Your task to perform on an android device: uninstall "Move to iOS" Image 0: 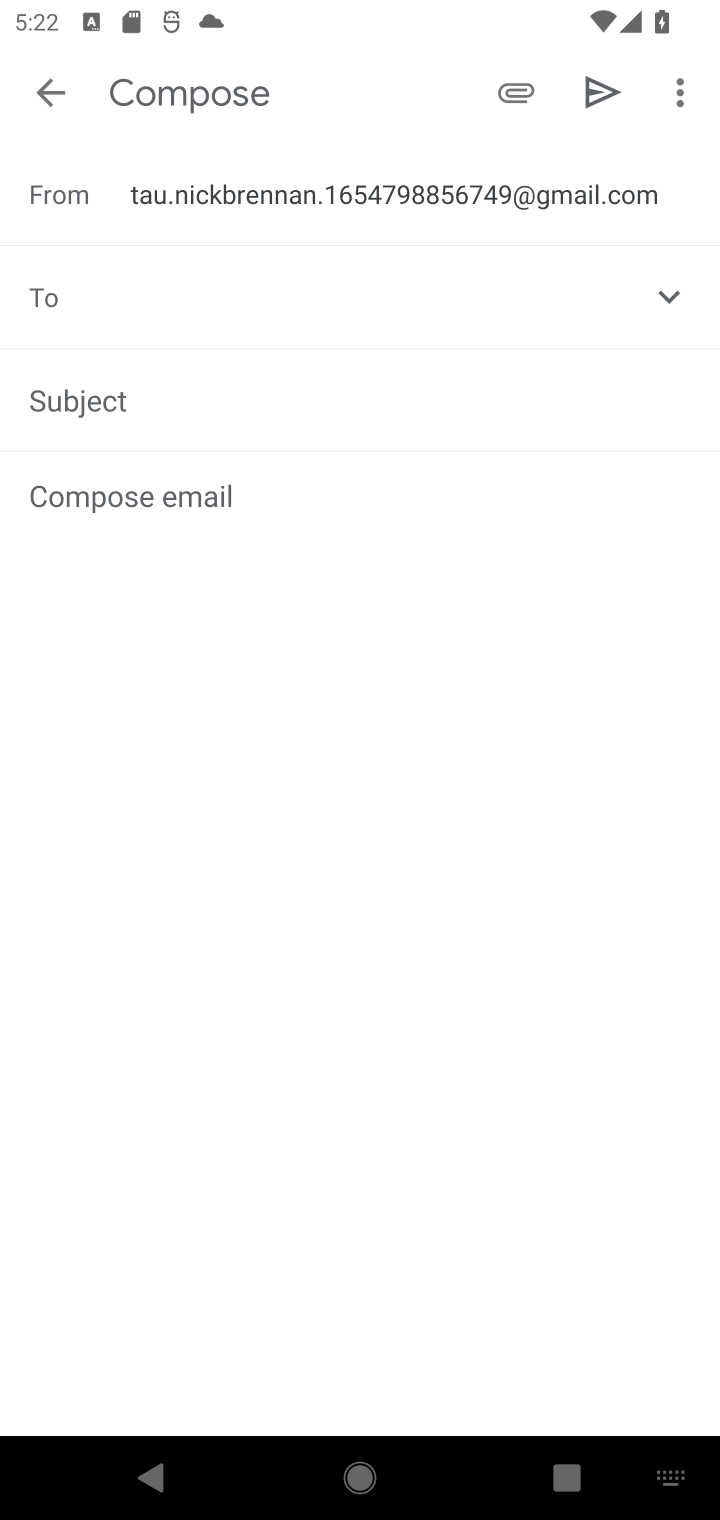
Step 0: press home button
Your task to perform on an android device: uninstall "Move to iOS" Image 1: 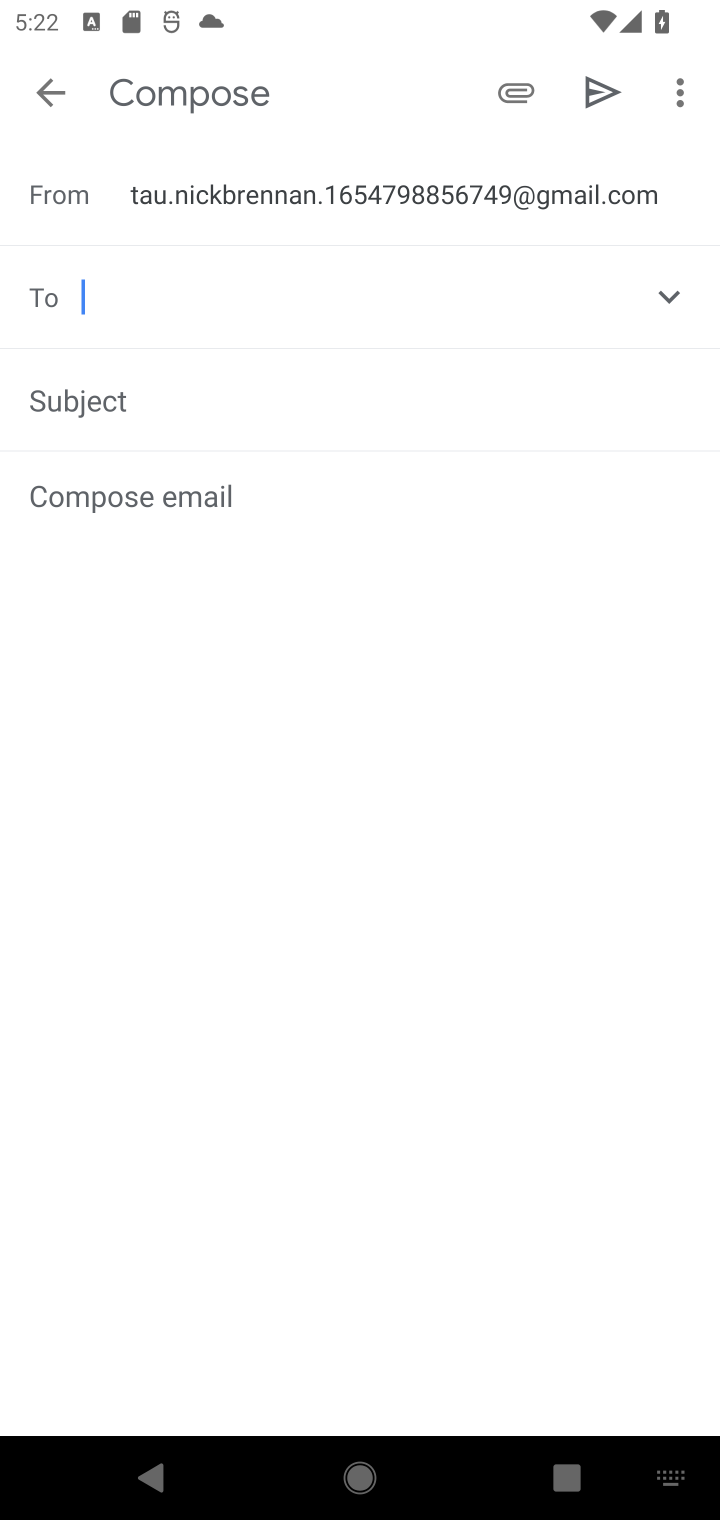
Step 1: press home button
Your task to perform on an android device: uninstall "Move to iOS" Image 2: 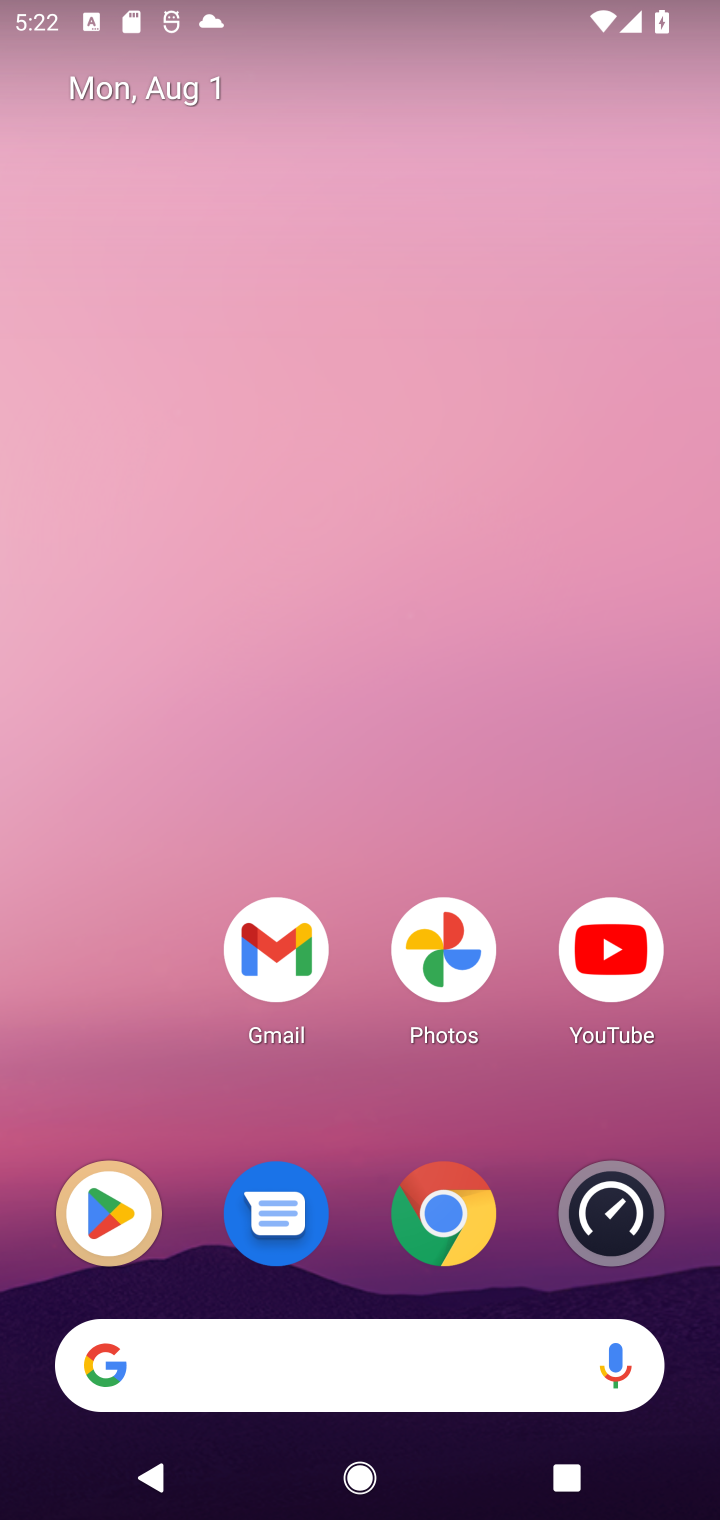
Step 2: drag from (343, 1114) to (349, 89)
Your task to perform on an android device: uninstall "Move to iOS" Image 3: 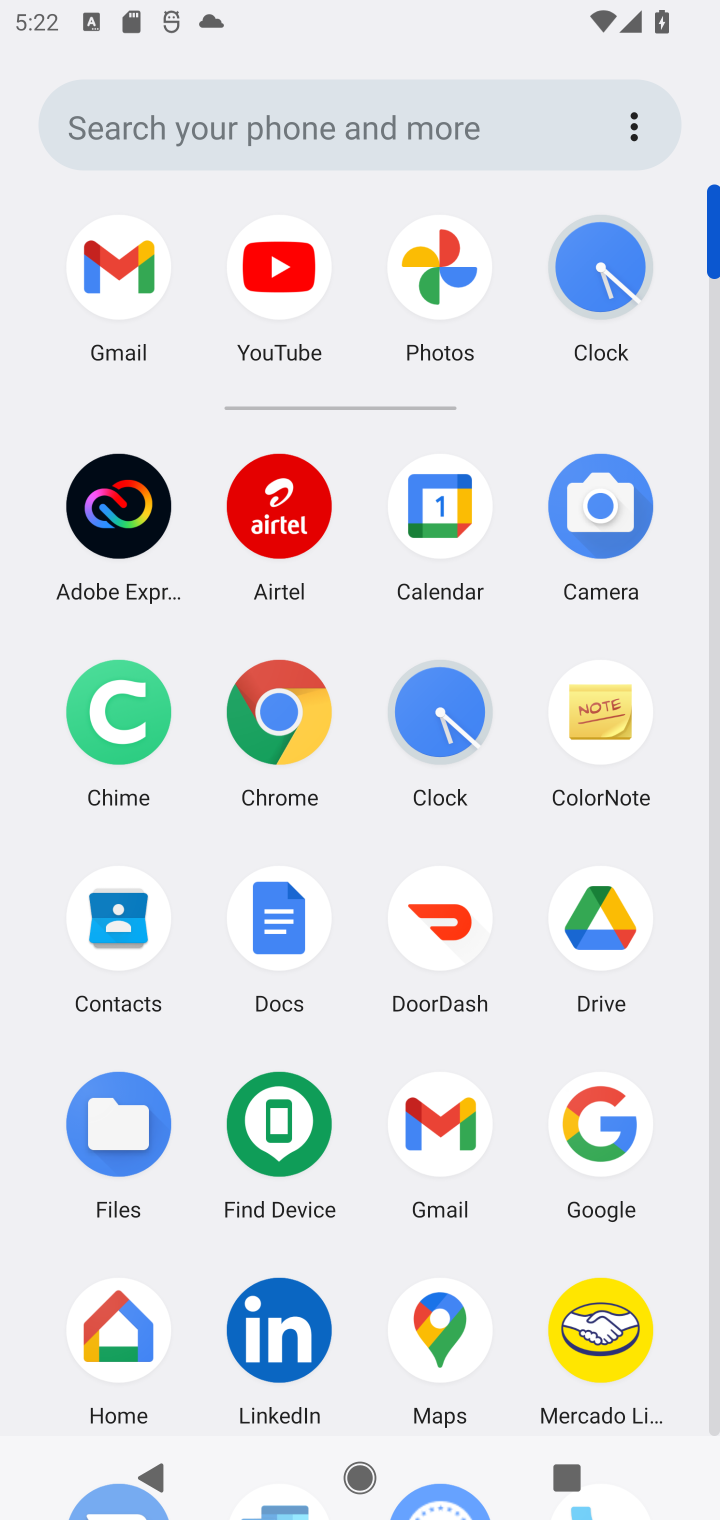
Step 3: drag from (361, 1261) to (402, 521)
Your task to perform on an android device: uninstall "Move to iOS" Image 4: 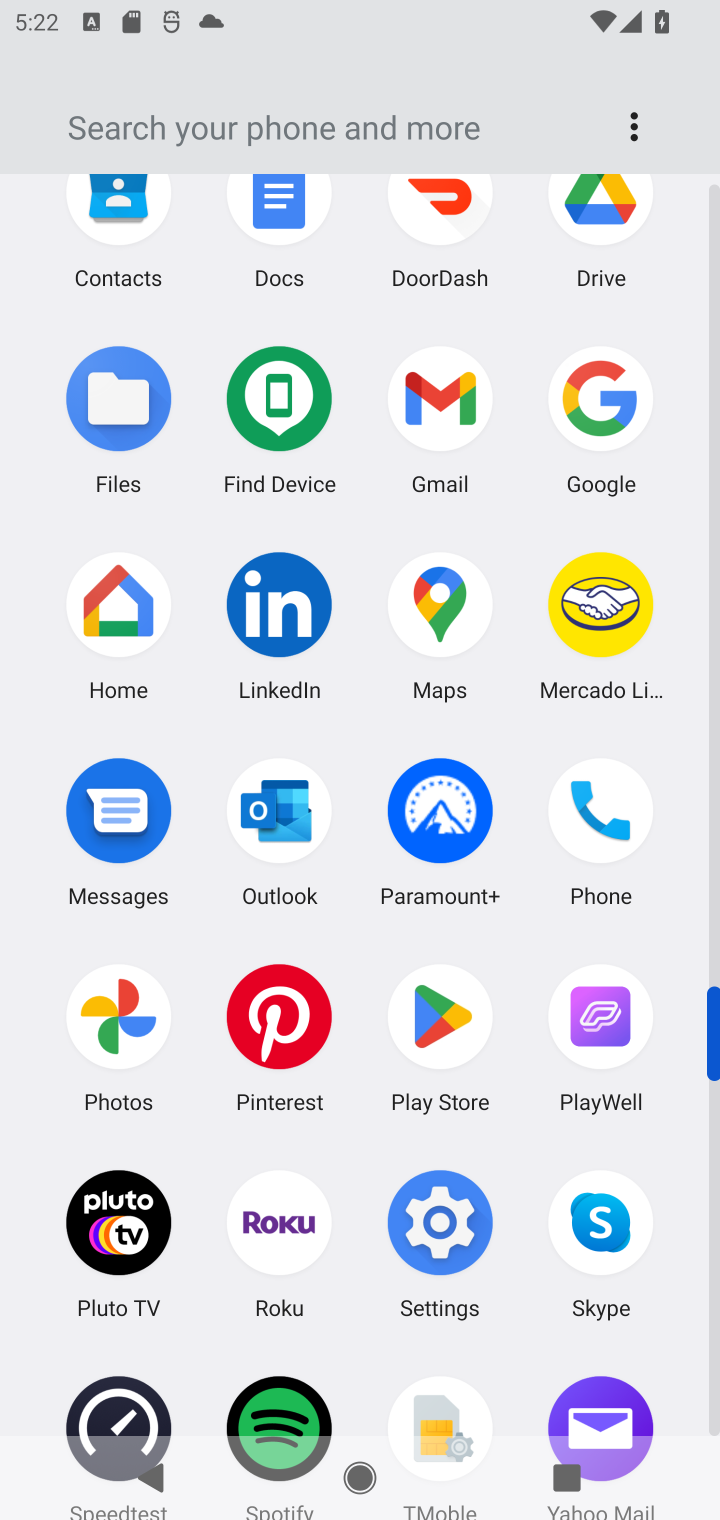
Step 4: click (437, 996)
Your task to perform on an android device: uninstall "Move to iOS" Image 5: 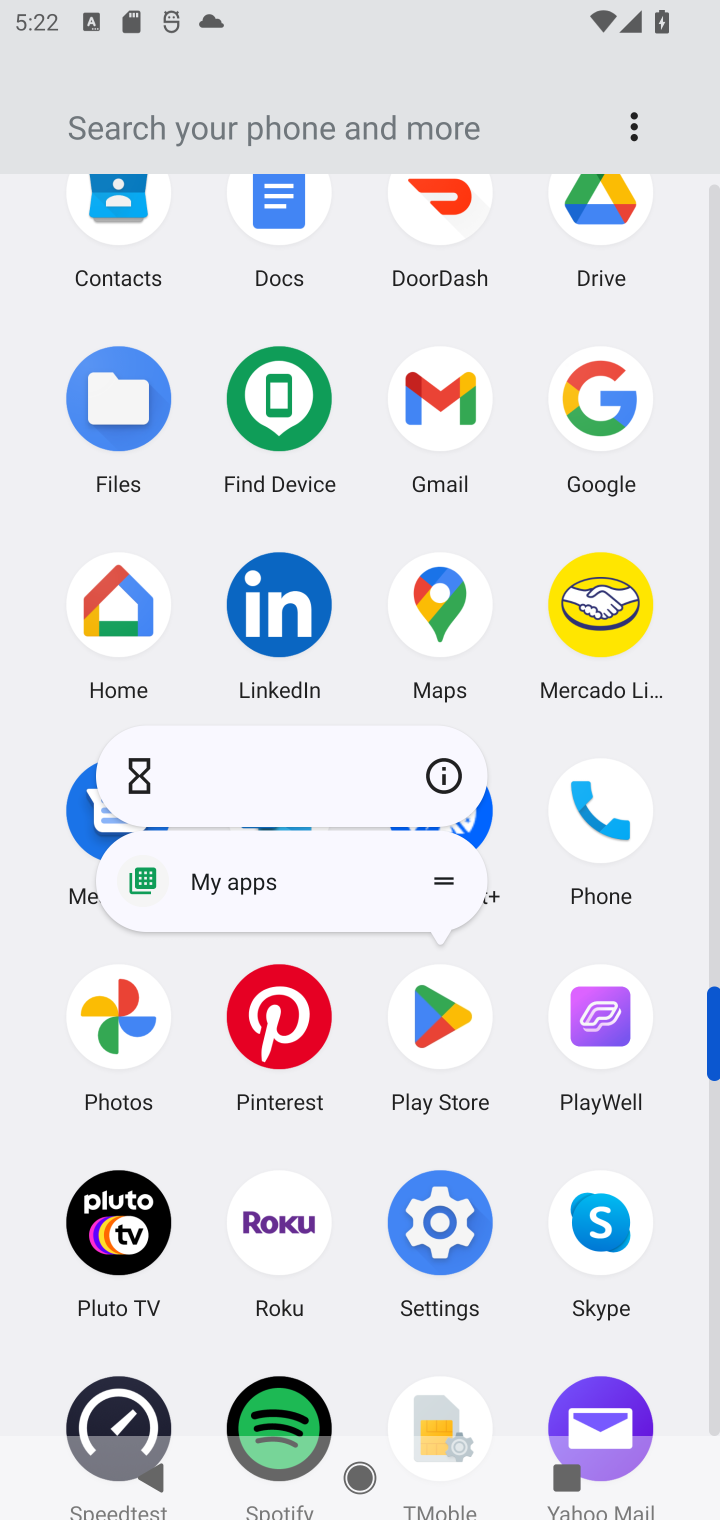
Step 5: click (431, 1018)
Your task to perform on an android device: uninstall "Move to iOS" Image 6: 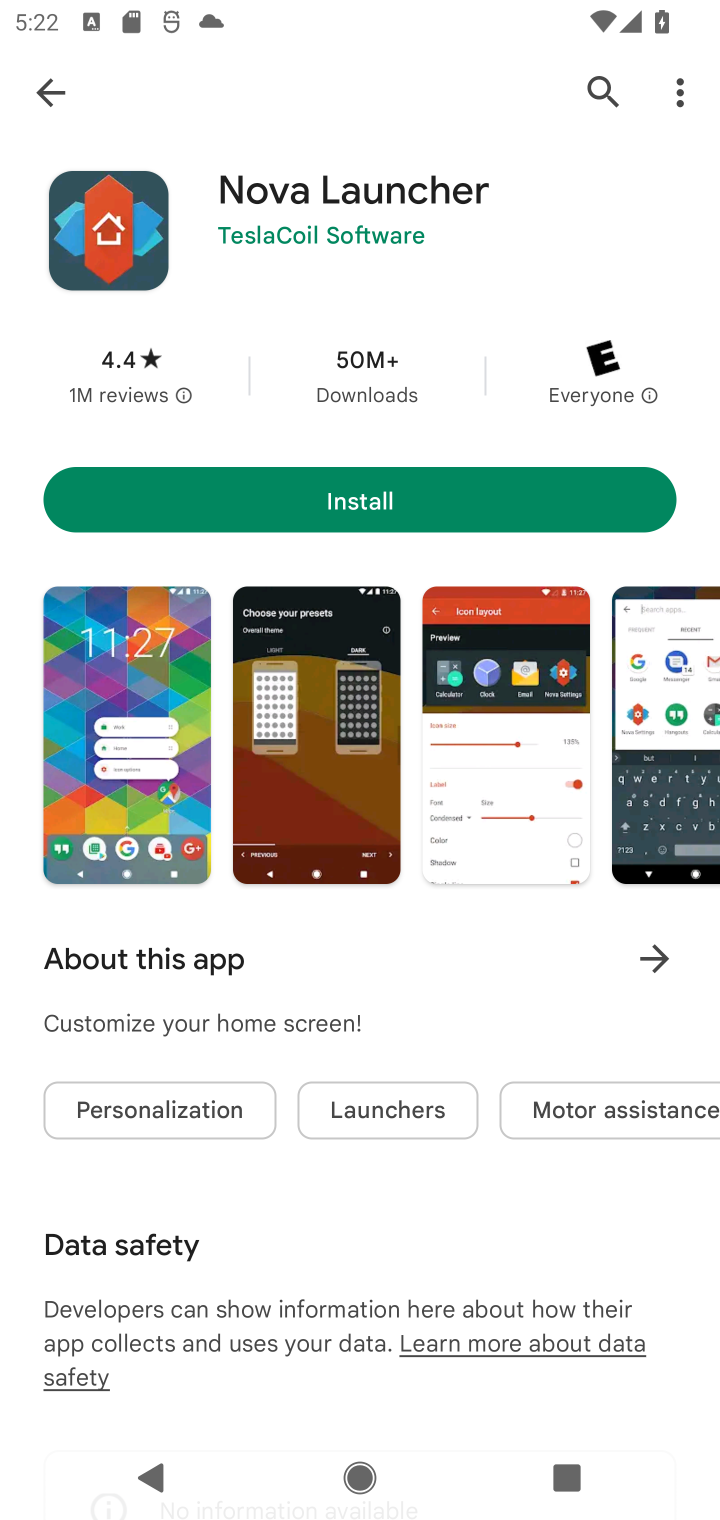
Step 6: click (606, 69)
Your task to perform on an android device: uninstall "Move to iOS" Image 7: 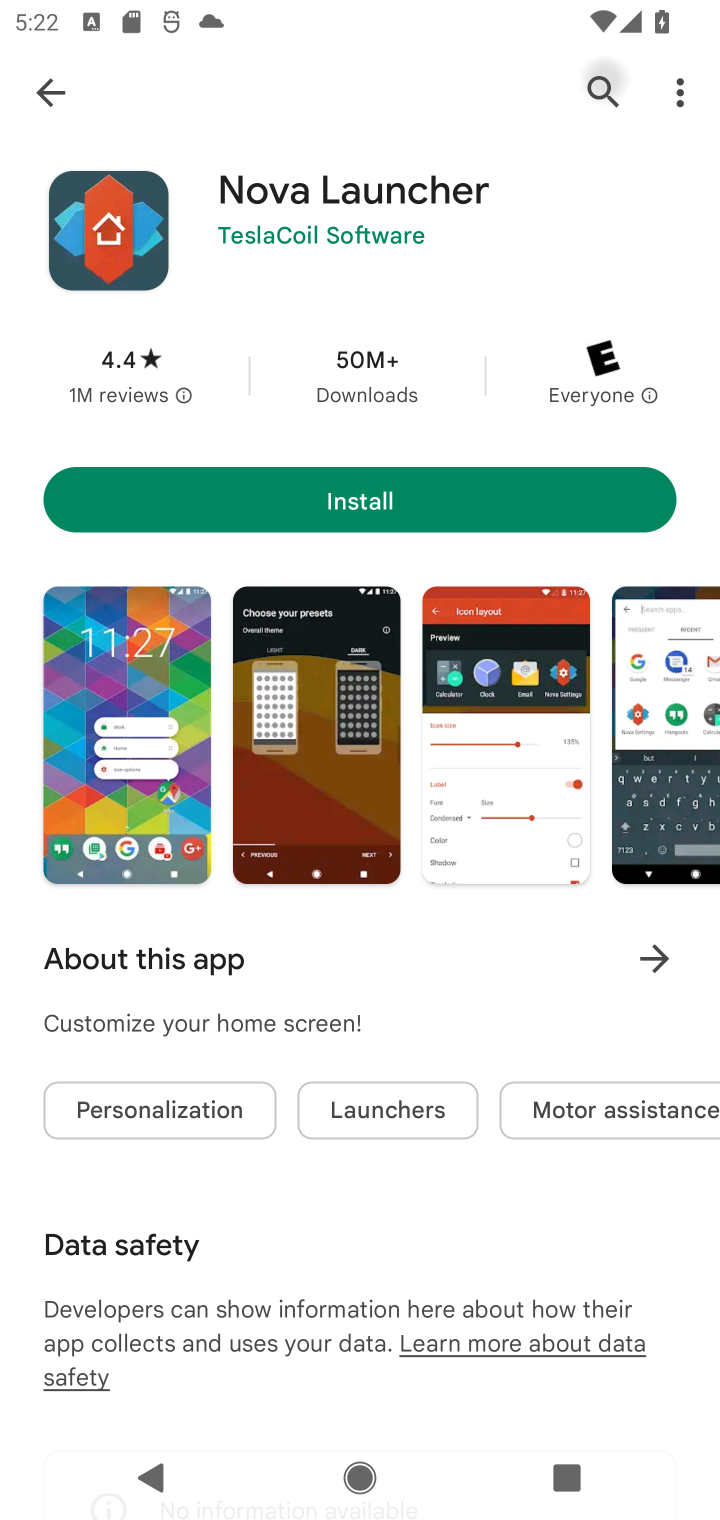
Step 7: click (600, 82)
Your task to perform on an android device: uninstall "Move to iOS" Image 8: 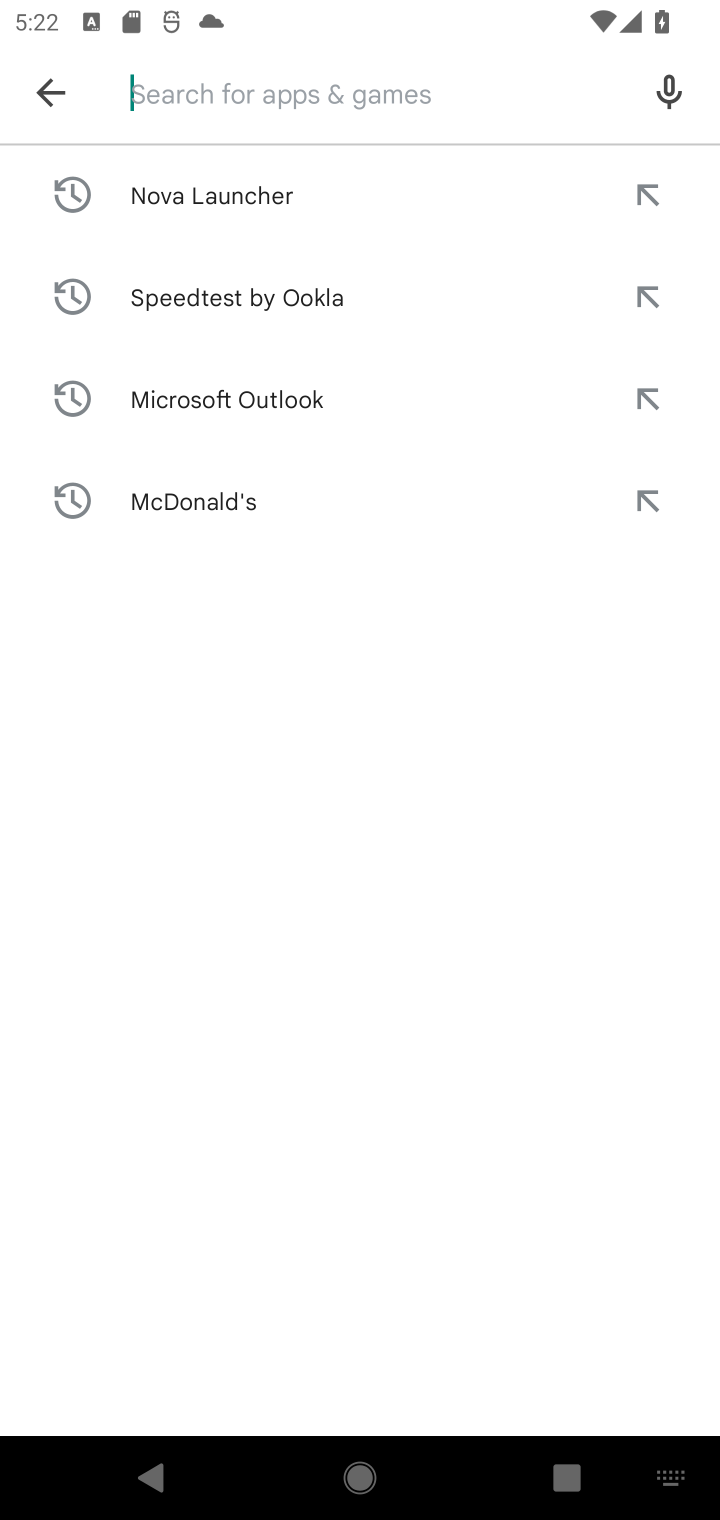
Step 8: type "Move to iOS"
Your task to perform on an android device: uninstall "Move to iOS" Image 9: 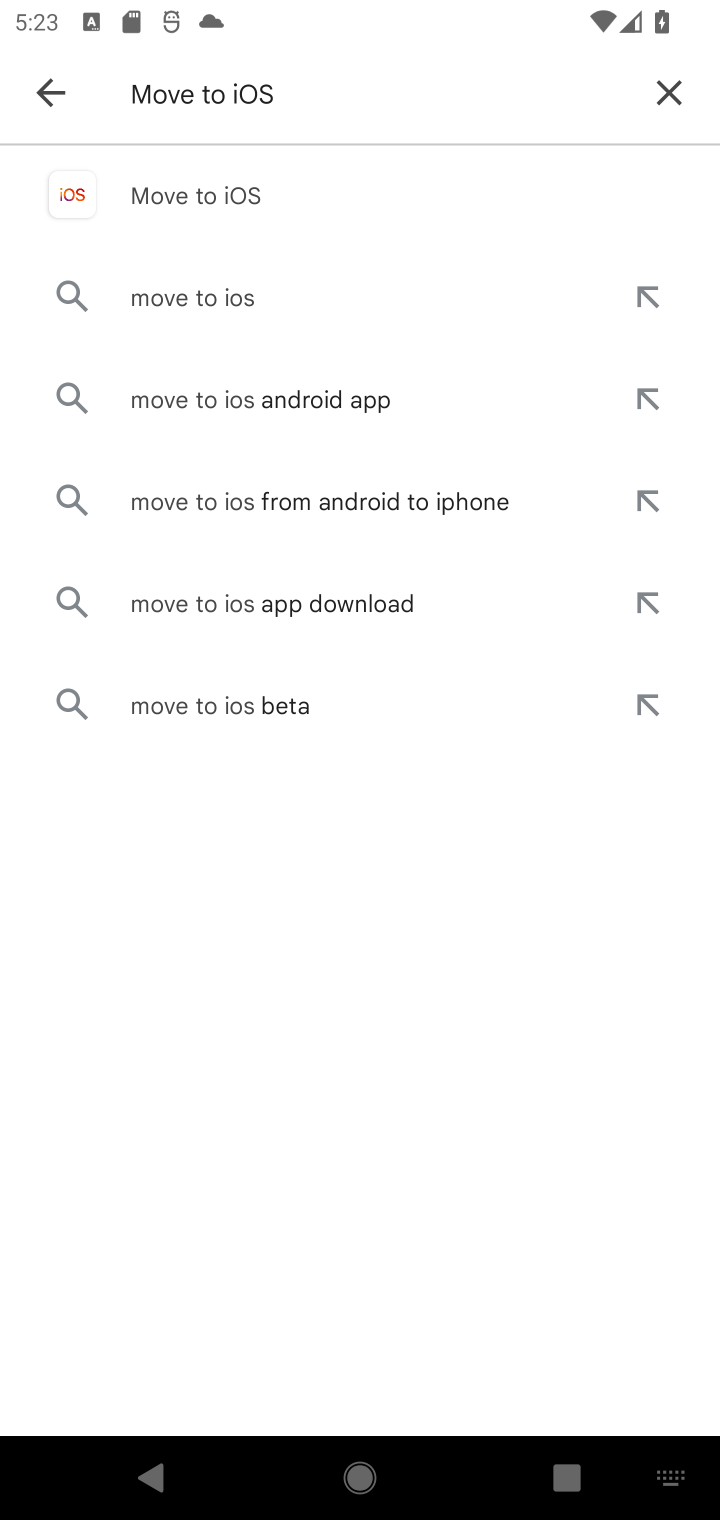
Step 9: click (134, 219)
Your task to perform on an android device: uninstall "Move to iOS" Image 10: 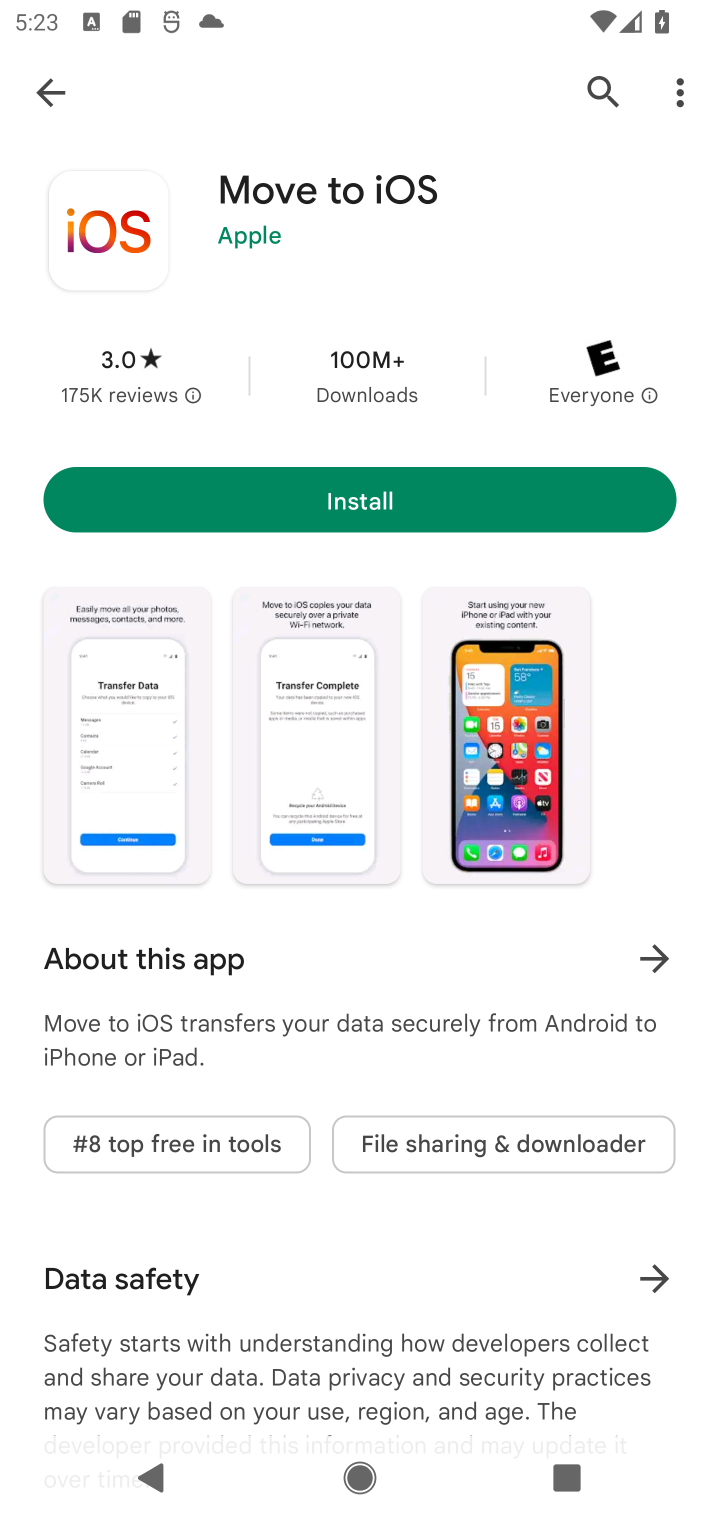
Step 10: task complete